Your task to perform on an android device: turn on airplane mode Image 0: 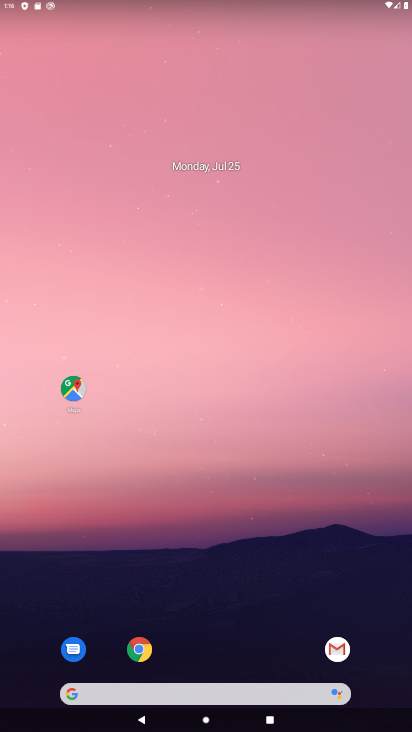
Step 0: drag from (231, 698) to (319, 132)
Your task to perform on an android device: turn on airplane mode Image 1: 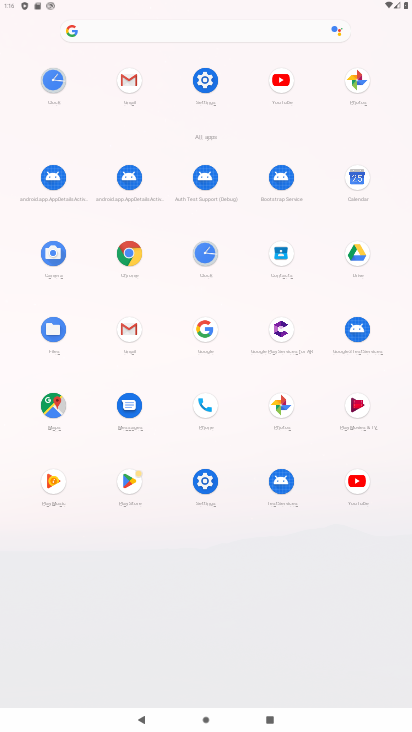
Step 1: click (197, 480)
Your task to perform on an android device: turn on airplane mode Image 2: 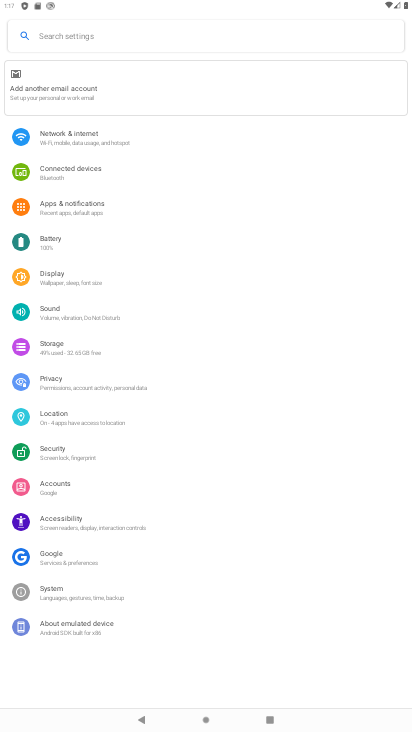
Step 2: click (90, 153)
Your task to perform on an android device: turn on airplane mode Image 3: 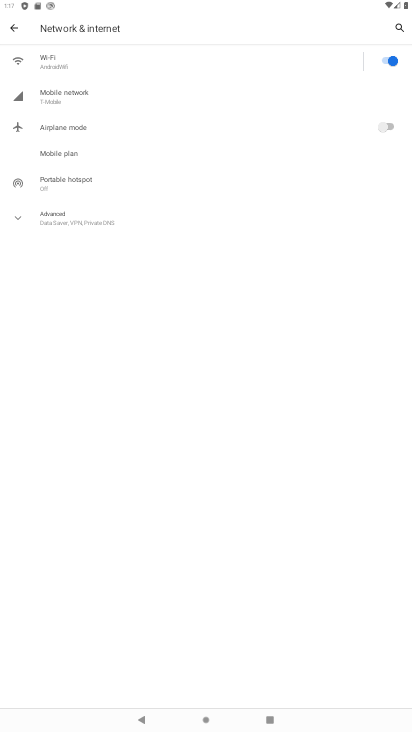
Step 3: click (392, 117)
Your task to perform on an android device: turn on airplane mode Image 4: 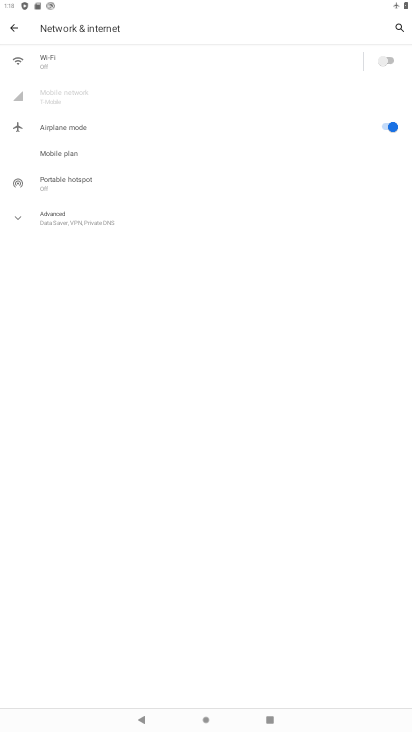
Step 4: task complete